Your task to perform on an android device: Go to display settings Image 0: 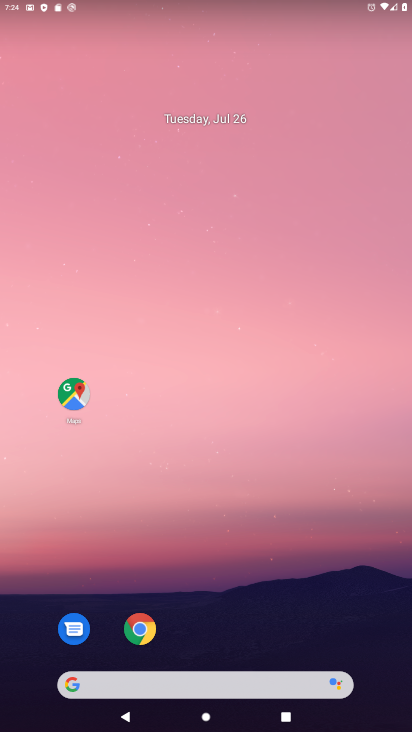
Step 0: drag from (210, 633) to (279, 8)
Your task to perform on an android device: Go to display settings Image 1: 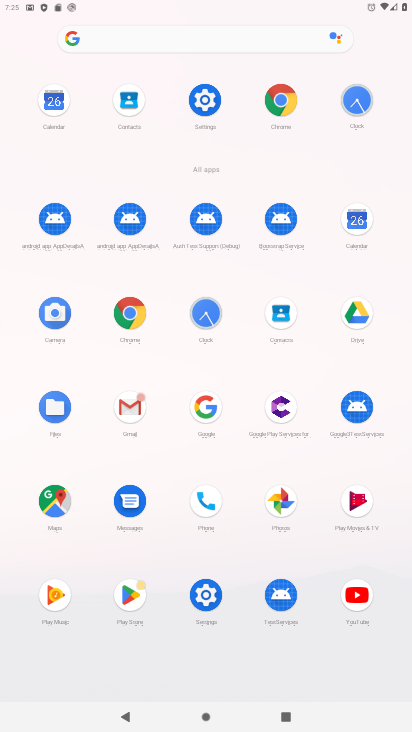
Step 1: click (209, 604)
Your task to perform on an android device: Go to display settings Image 2: 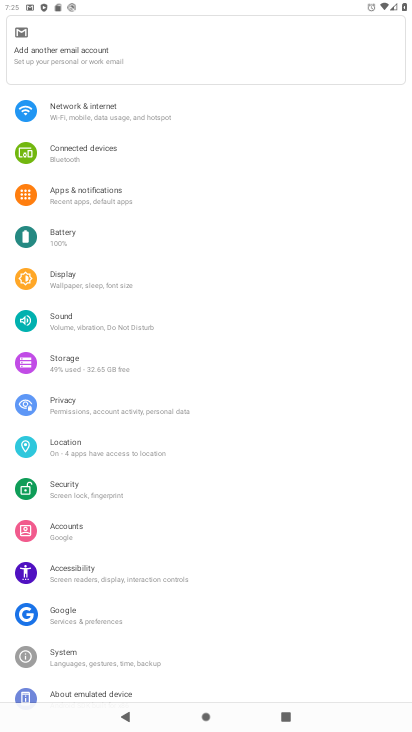
Step 2: click (76, 280)
Your task to perform on an android device: Go to display settings Image 3: 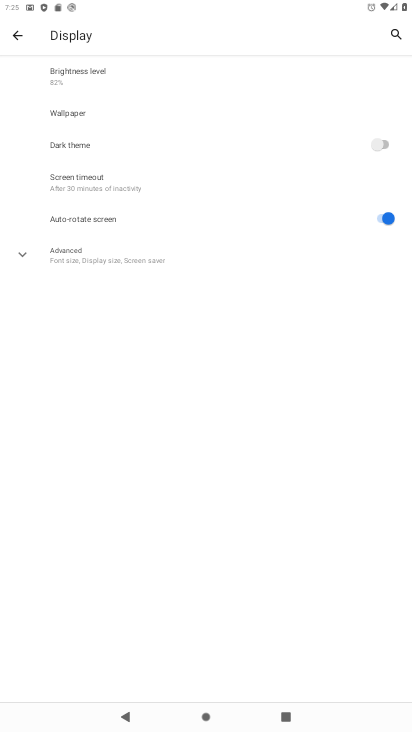
Step 3: task complete